Your task to perform on an android device: View the shopping cart on bestbuy. Search for rayovac triple a on bestbuy, select the first entry, add it to the cart, then select checkout. Image 0: 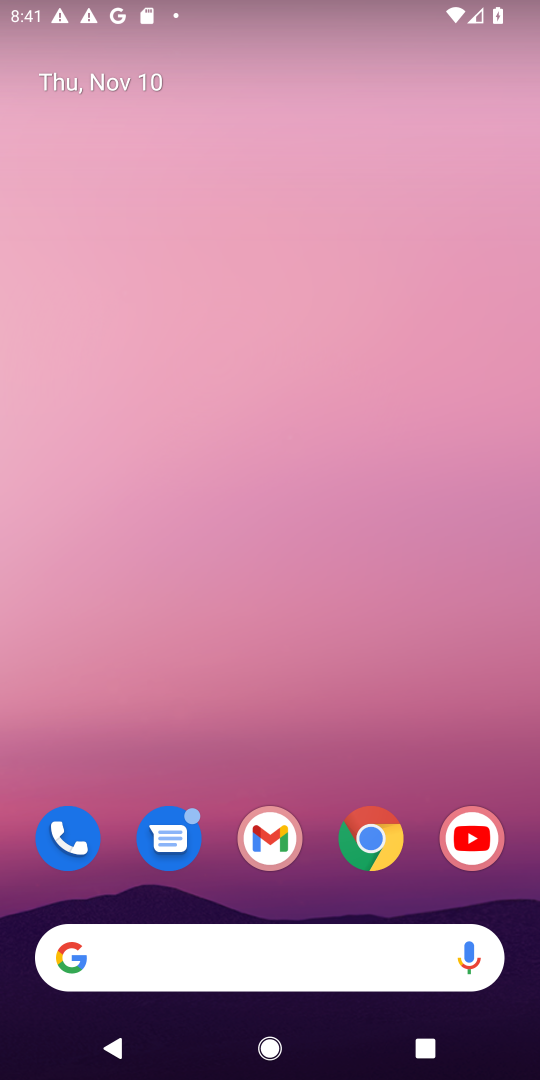
Step 0: drag from (315, 888) to (375, 135)
Your task to perform on an android device: View the shopping cart on bestbuy. Search for rayovac triple a on bestbuy, select the first entry, add it to the cart, then select checkout. Image 1: 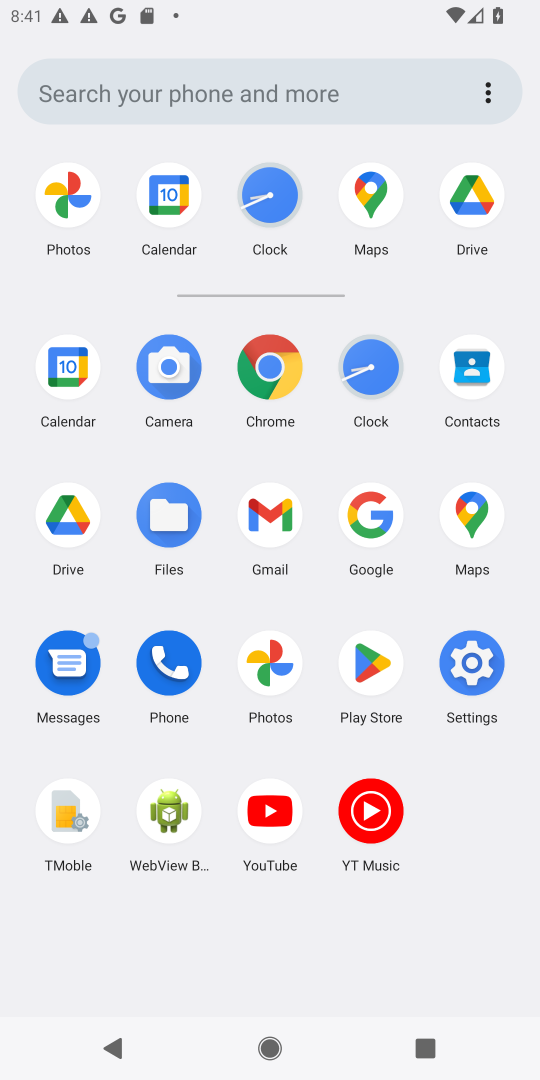
Step 1: click (269, 370)
Your task to perform on an android device: View the shopping cart on bestbuy. Search for rayovac triple a on bestbuy, select the first entry, add it to the cart, then select checkout. Image 2: 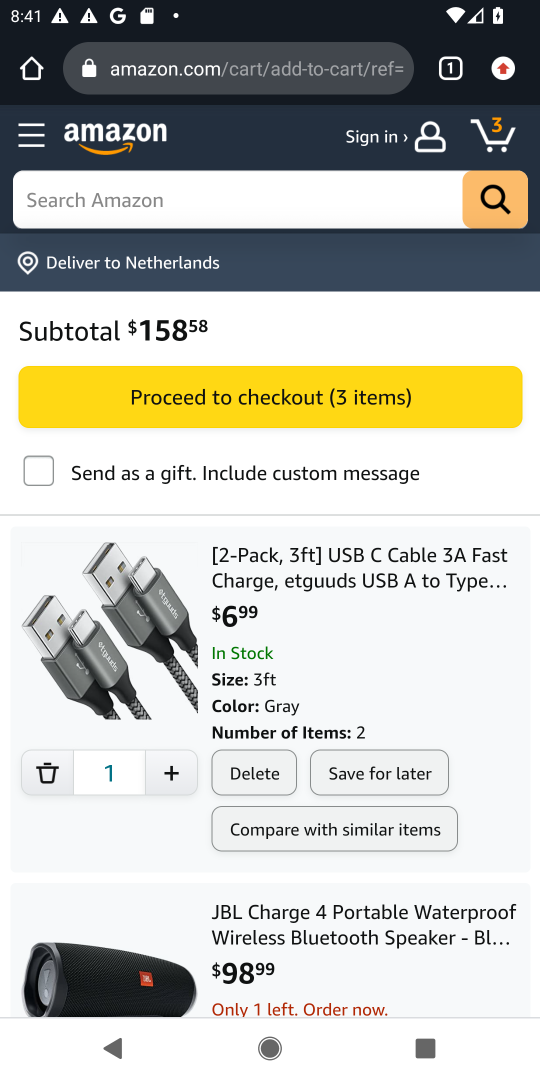
Step 2: click (287, 77)
Your task to perform on an android device: View the shopping cart on bestbuy. Search for rayovac triple a on bestbuy, select the first entry, add it to the cart, then select checkout. Image 3: 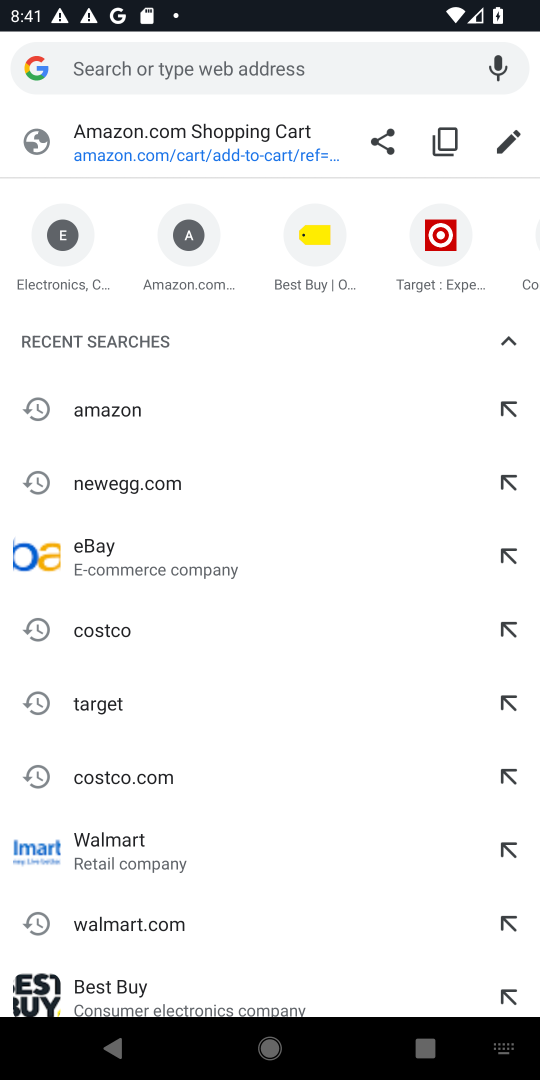
Step 3: type "bestbuy.com"
Your task to perform on an android device: View the shopping cart on bestbuy. Search for rayovac triple a on bestbuy, select the first entry, add it to the cart, then select checkout. Image 4: 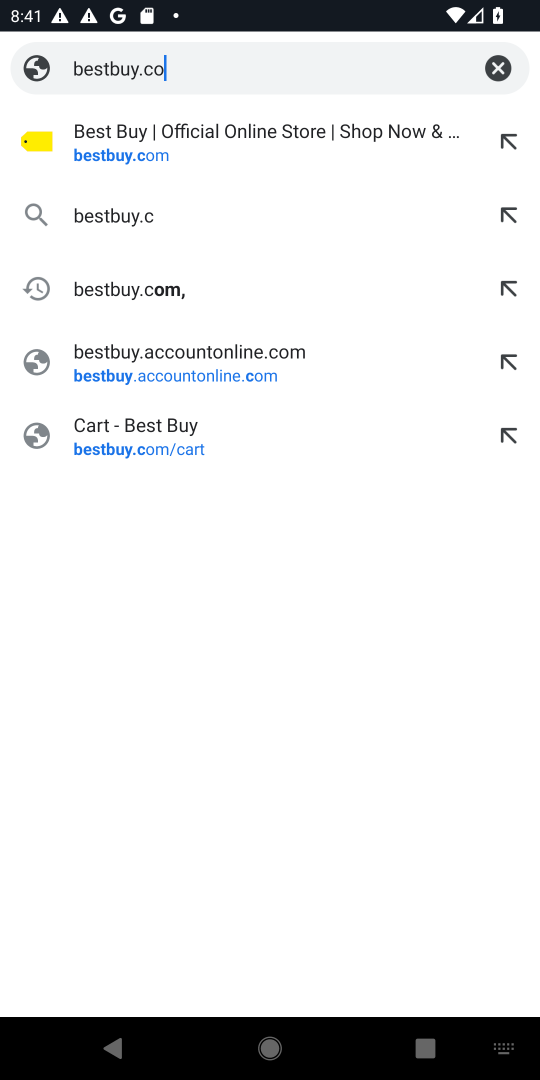
Step 4: press enter
Your task to perform on an android device: View the shopping cart on bestbuy. Search for rayovac triple a on bestbuy, select the first entry, add it to the cart, then select checkout. Image 5: 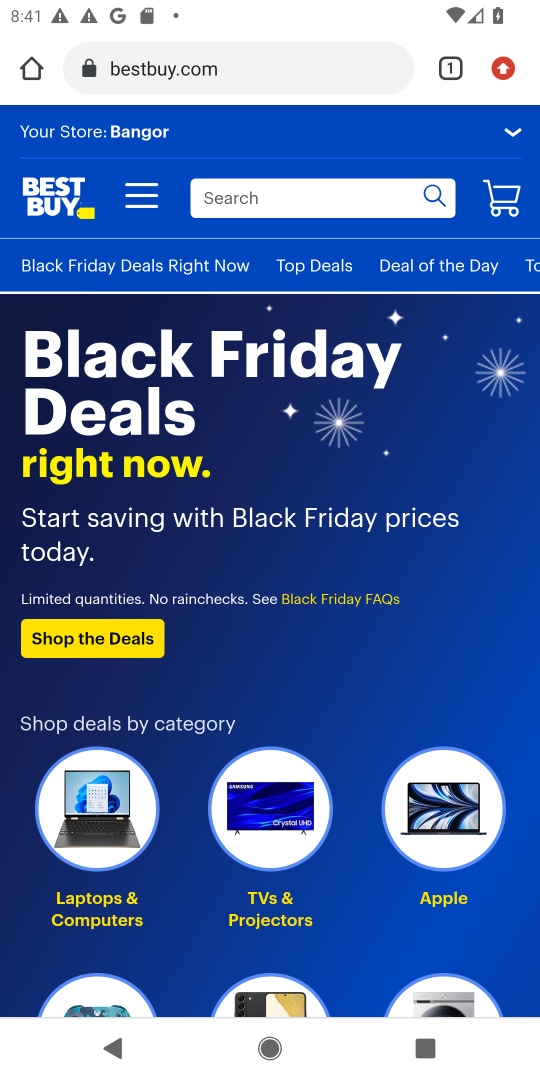
Step 5: click (485, 192)
Your task to perform on an android device: View the shopping cart on bestbuy. Search for rayovac triple a on bestbuy, select the first entry, add it to the cart, then select checkout. Image 6: 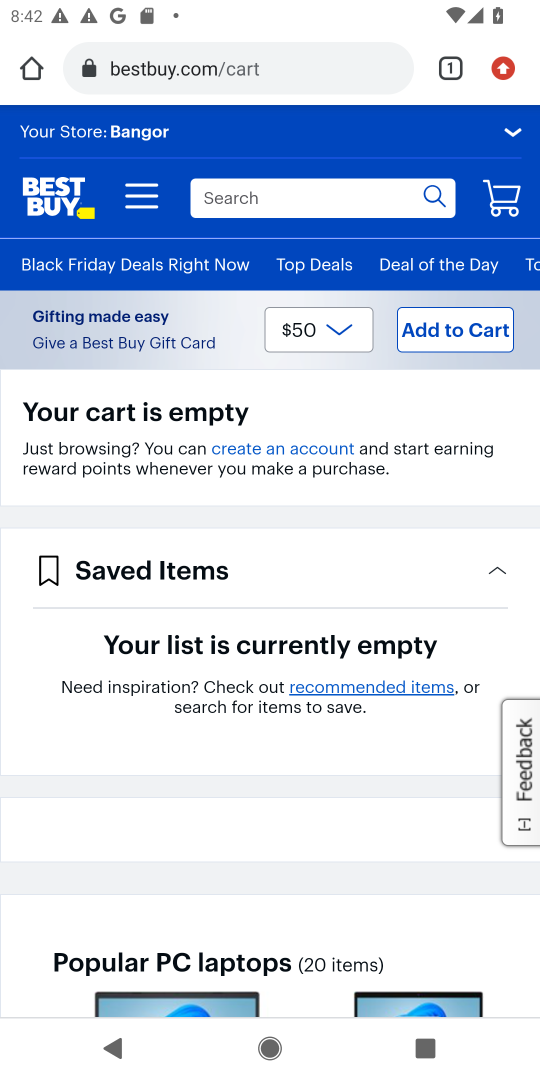
Step 6: click (325, 206)
Your task to perform on an android device: View the shopping cart on bestbuy. Search for rayovac triple a on bestbuy, select the first entry, add it to the cart, then select checkout. Image 7: 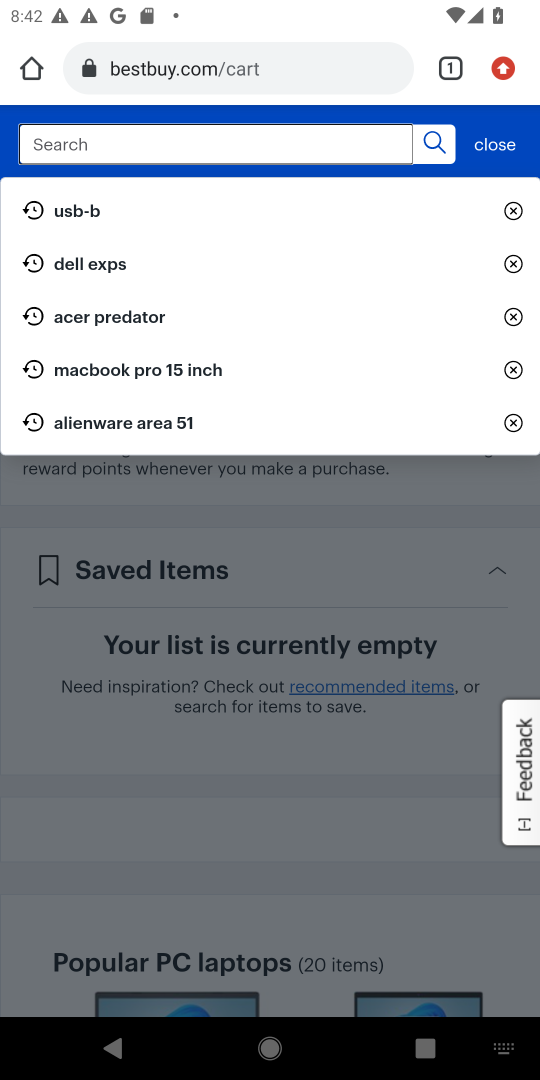
Step 7: type "rayovac triple a"
Your task to perform on an android device: View the shopping cart on bestbuy. Search for rayovac triple a on bestbuy, select the first entry, add it to the cart, then select checkout. Image 8: 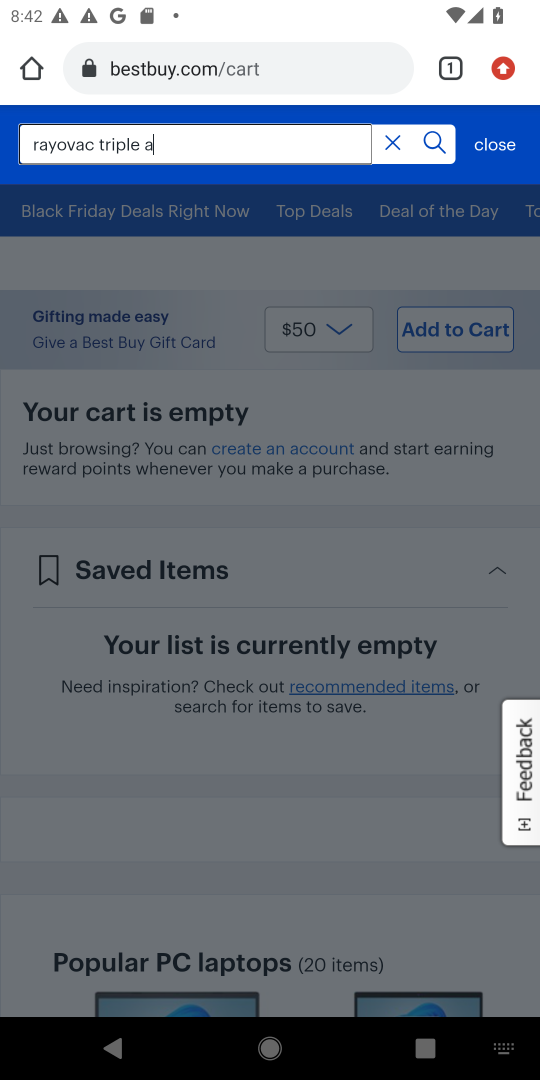
Step 8: press enter
Your task to perform on an android device: View the shopping cart on bestbuy. Search for rayovac triple a on bestbuy, select the first entry, add it to the cart, then select checkout. Image 9: 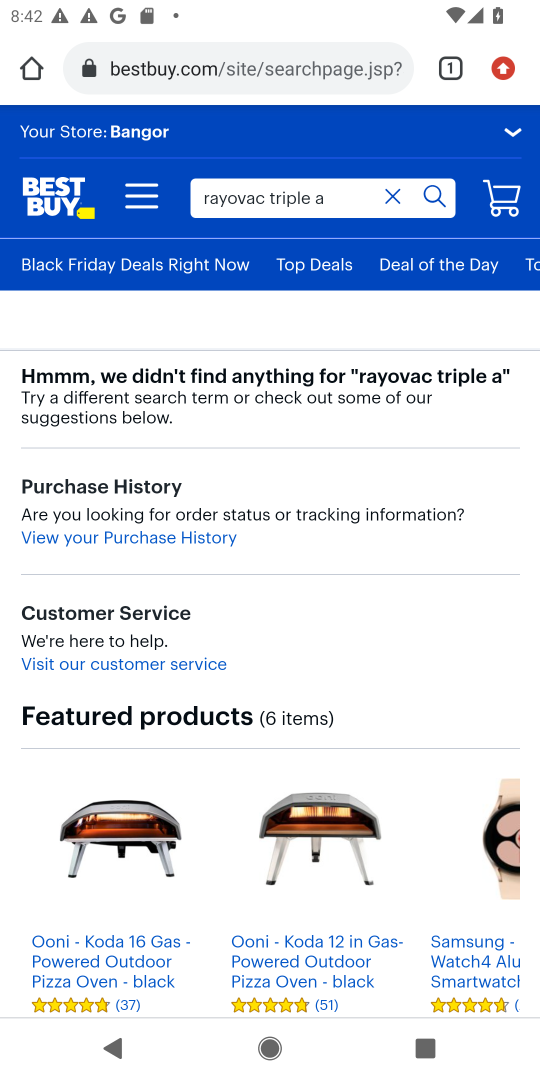
Step 9: task complete